Your task to perform on an android device: add a label to a message in the gmail app Image 0: 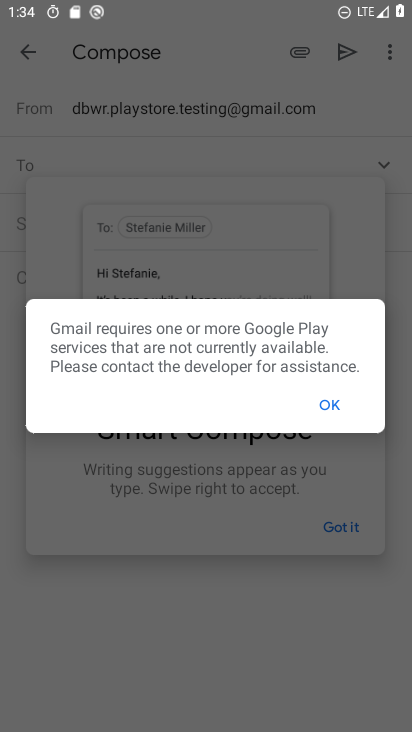
Step 0: press home button
Your task to perform on an android device: add a label to a message in the gmail app Image 1: 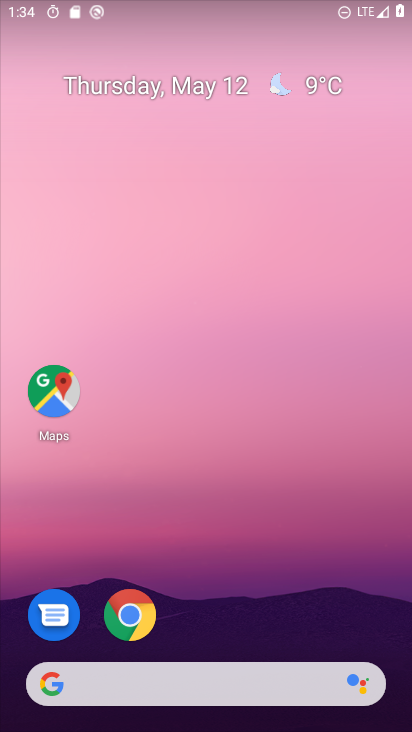
Step 1: drag from (206, 609) to (218, 114)
Your task to perform on an android device: add a label to a message in the gmail app Image 2: 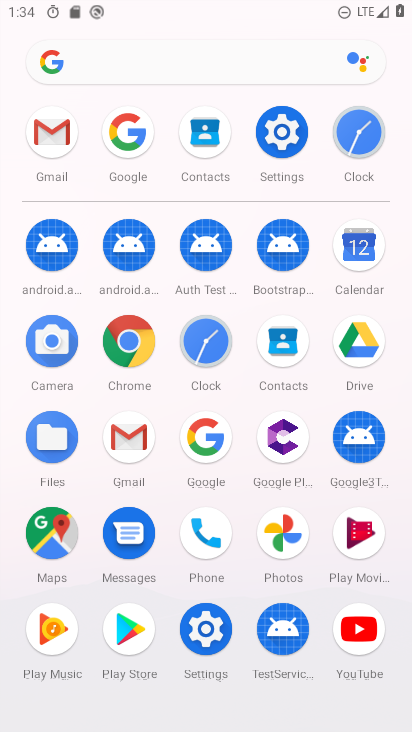
Step 2: click (58, 135)
Your task to perform on an android device: add a label to a message in the gmail app Image 3: 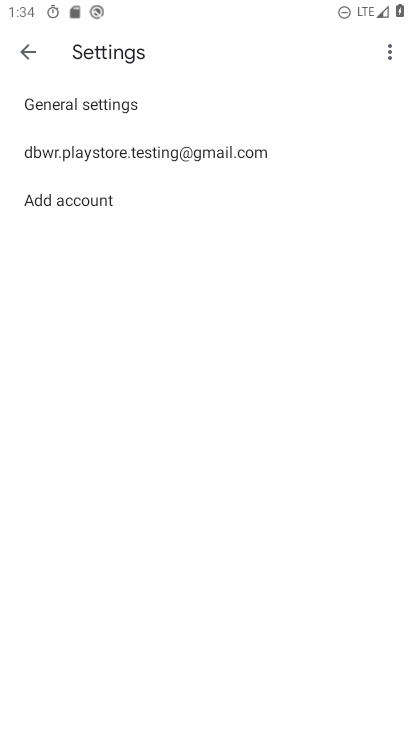
Step 3: click (26, 49)
Your task to perform on an android device: add a label to a message in the gmail app Image 4: 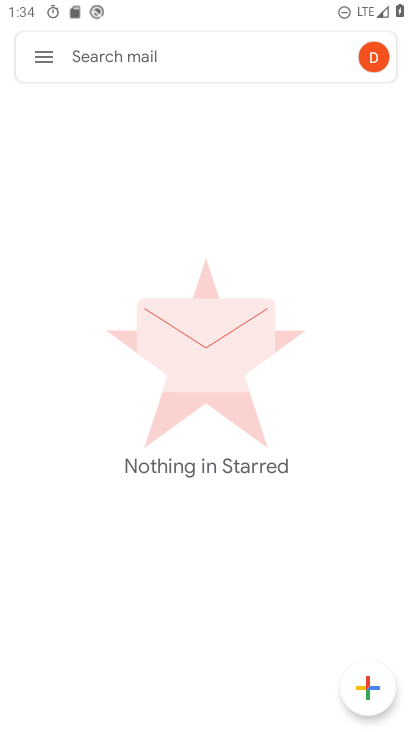
Step 4: click (41, 49)
Your task to perform on an android device: add a label to a message in the gmail app Image 5: 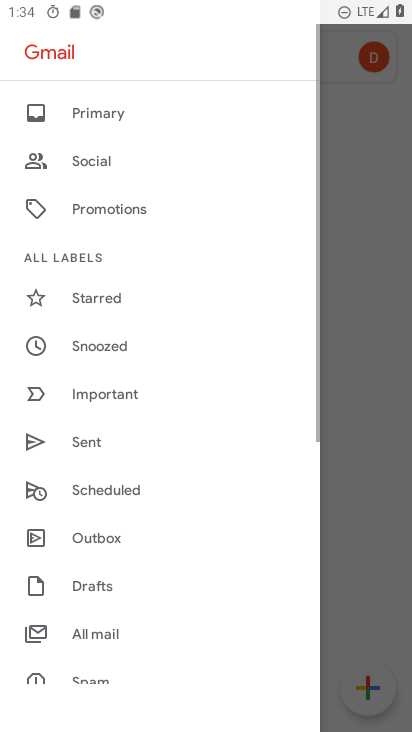
Step 5: drag from (166, 193) to (155, 563)
Your task to perform on an android device: add a label to a message in the gmail app Image 6: 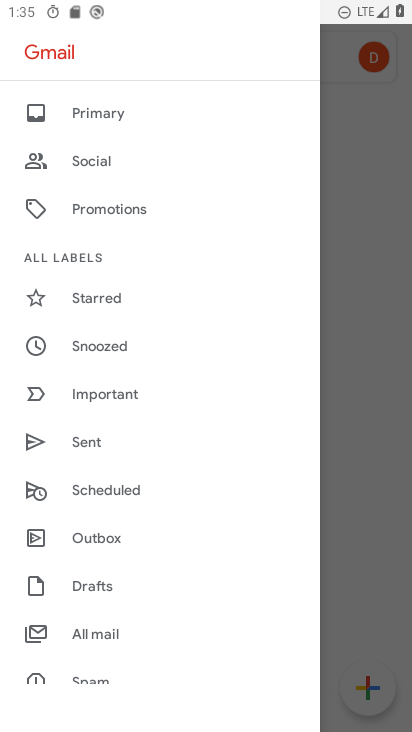
Step 6: drag from (86, 557) to (130, 224)
Your task to perform on an android device: add a label to a message in the gmail app Image 7: 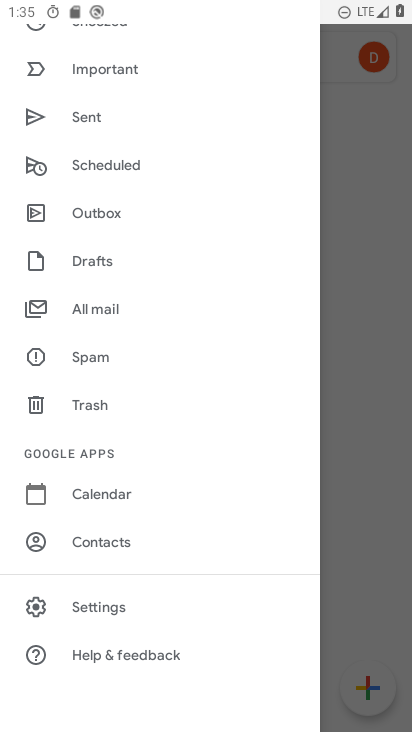
Step 7: click (97, 312)
Your task to perform on an android device: add a label to a message in the gmail app Image 8: 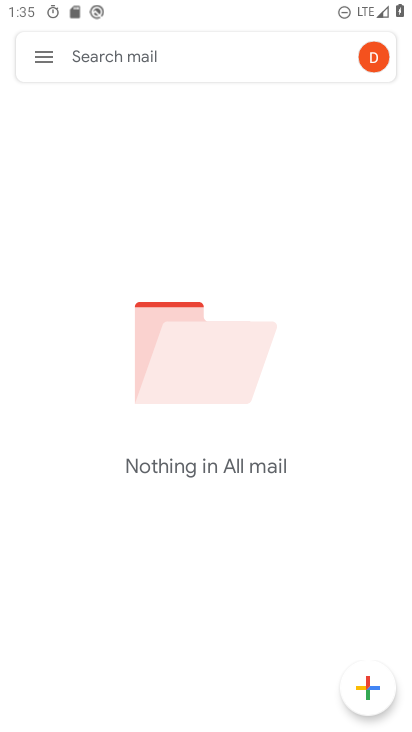
Step 8: task complete